Your task to perform on an android device: turn off smart reply in the gmail app Image 0: 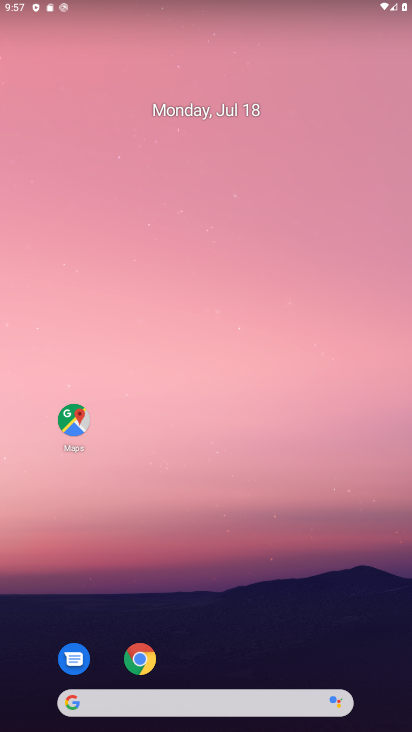
Step 0: drag from (226, 610) to (270, 107)
Your task to perform on an android device: turn off smart reply in the gmail app Image 1: 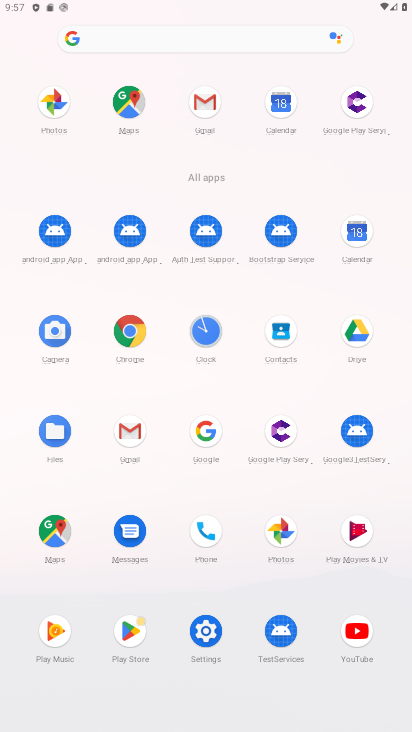
Step 1: click (134, 440)
Your task to perform on an android device: turn off smart reply in the gmail app Image 2: 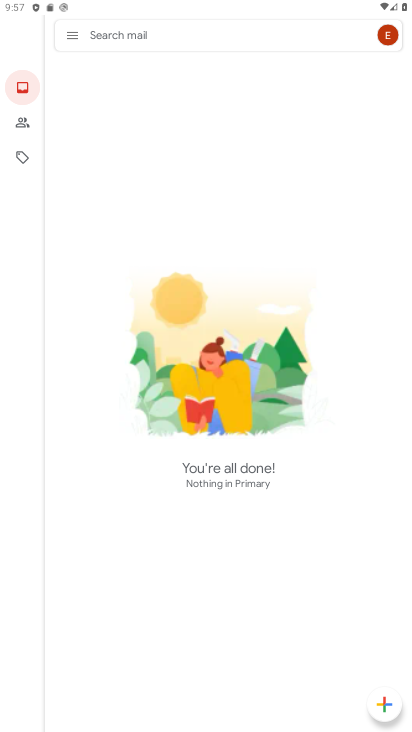
Step 2: click (62, 36)
Your task to perform on an android device: turn off smart reply in the gmail app Image 3: 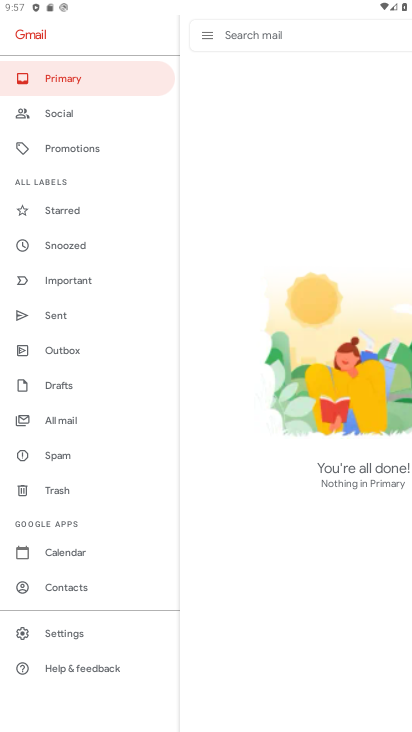
Step 3: click (52, 636)
Your task to perform on an android device: turn off smart reply in the gmail app Image 4: 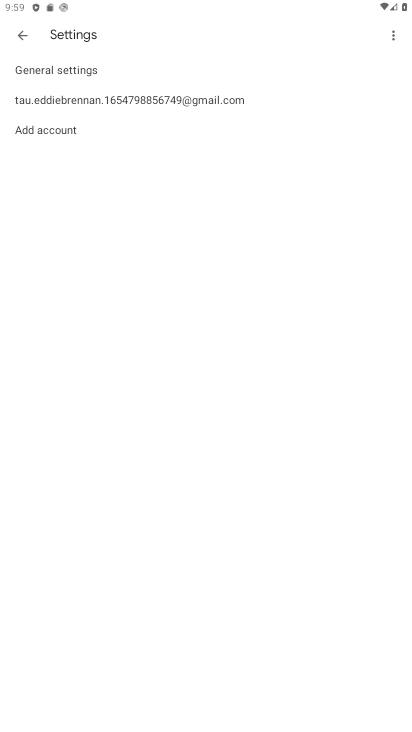
Step 4: task complete